Your task to perform on an android device: Turn on the flashlight Image 0: 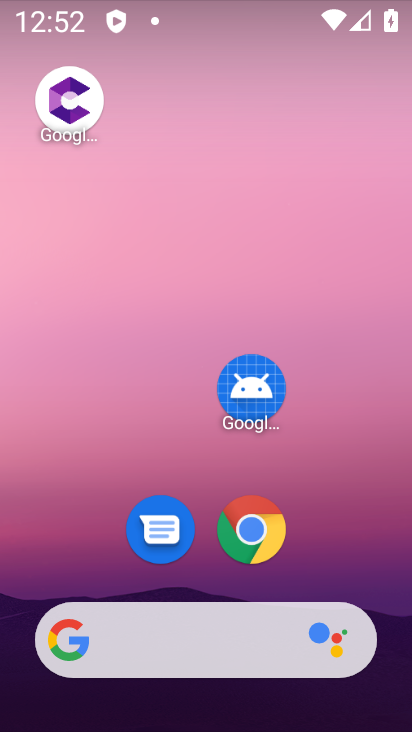
Step 0: drag from (221, 651) to (180, 102)
Your task to perform on an android device: Turn on the flashlight Image 1: 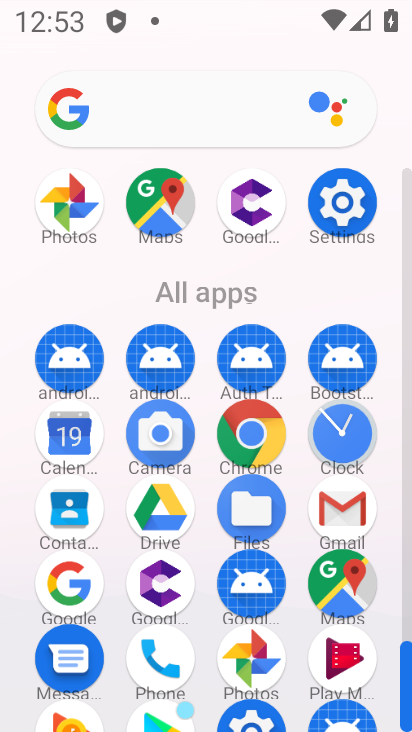
Step 1: task complete